Your task to perform on an android device: star an email in the gmail app Image 0: 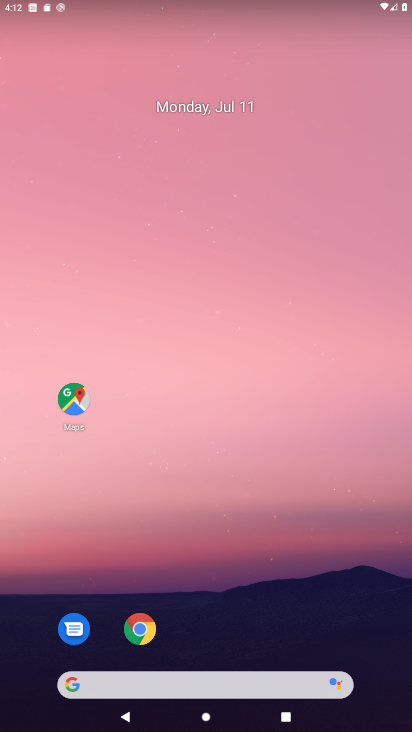
Step 0: drag from (369, 688) to (312, 197)
Your task to perform on an android device: star an email in the gmail app Image 1: 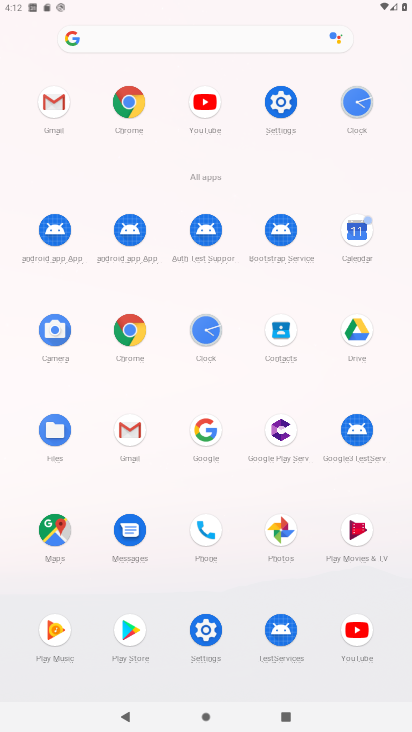
Step 1: click (129, 441)
Your task to perform on an android device: star an email in the gmail app Image 2: 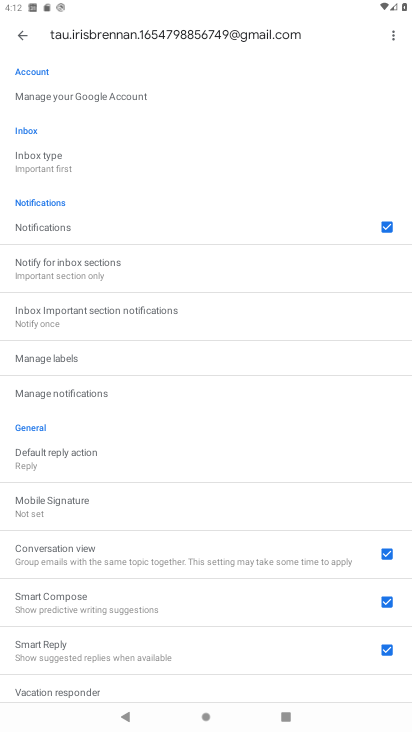
Step 2: click (15, 26)
Your task to perform on an android device: star an email in the gmail app Image 3: 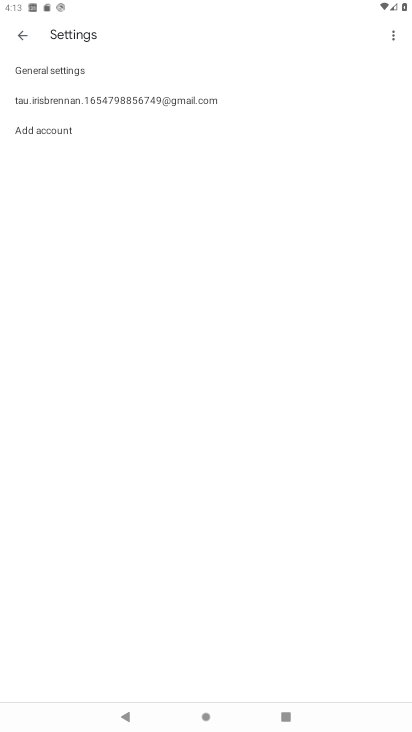
Step 3: click (15, 30)
Your task to perform on an android device: star an email in the gmail app Image 4: 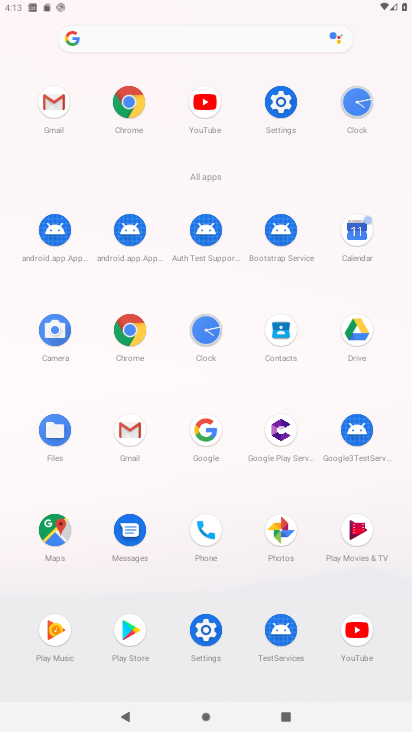
Step 4: click (58, 108)
Your task to perform on an android device: star an email in the gmail app Image 5: 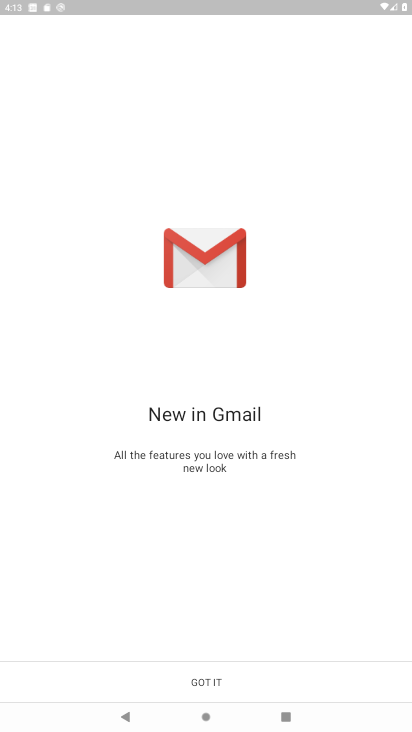
Step 5: click (212, 677)
Your task to perform on an android device: star an email in the gmail app Image 6: 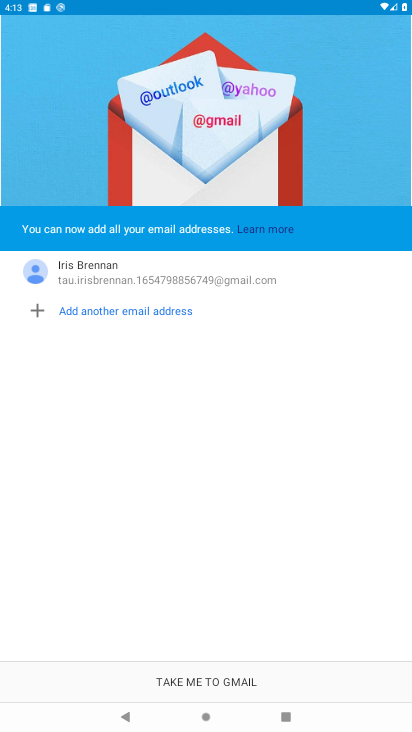
Step 6: click (212, 677)
Your task to perform on an android device: star an email in the gmail app Image 7: 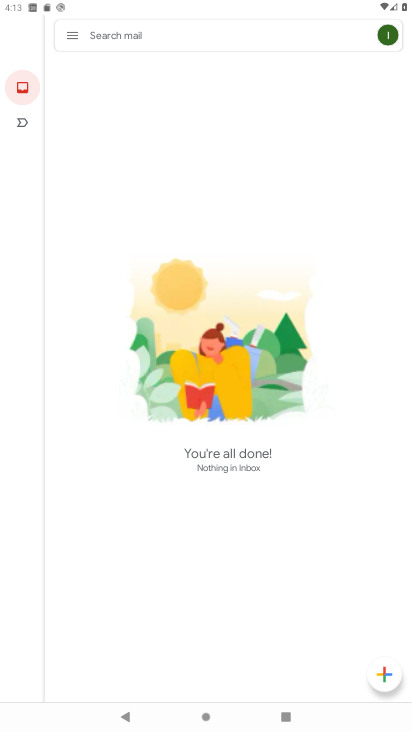
Step 7: click (320, 284)
Your task to perform on an android device: star an email in the gmail app Image 8: 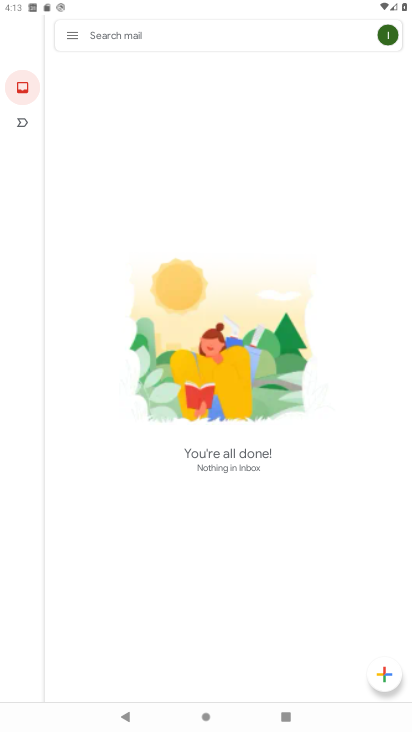
Step 8: task complete